Your task to perform on an android device: open app "Booking.com: Hotels and more" (install if not already installed), go to login, and select forgot password Image 0: 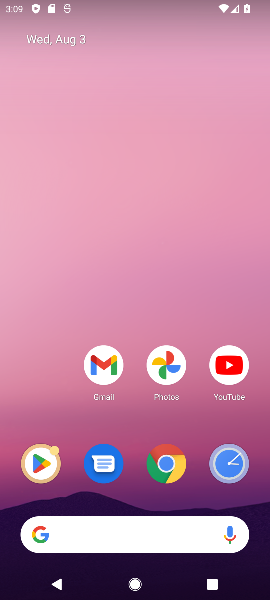
Step 0: drag from (172, 522) to (190, 265)
Your task to perform on an android device: open app "Booking.com: Hotels and more" (install if not already installed), go to login, and select forgot password Image 1: 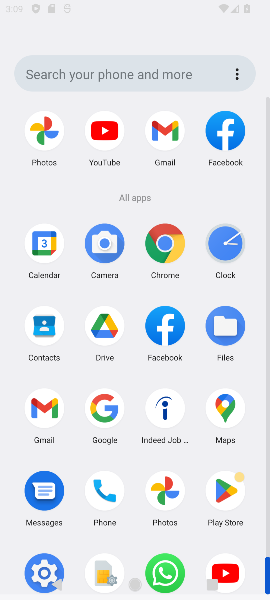
Step 1: drag from (167, 394) to (154, 162)
Your task to perform on an android device: open app "Booking.com: Hotels and more" (install if not already installed), go to login, and select forgot password Image 2: 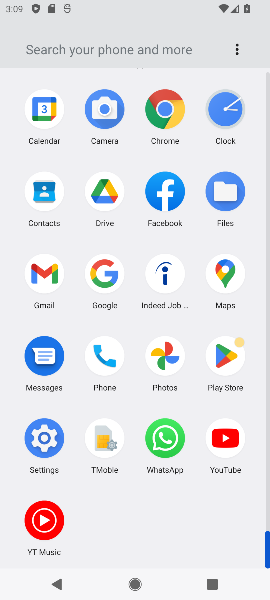
Step 2: click (227, 351)
Your task to perform on an android device: open app "Booking.com: Hotels and more" (install if not already installed), go to login, and select forgot password Image 3: 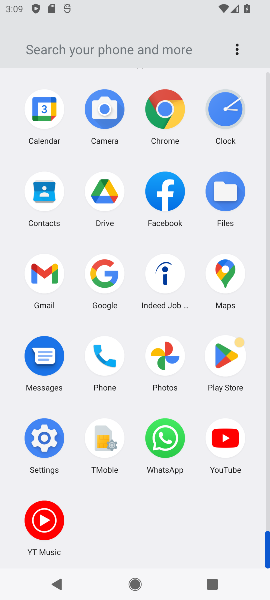
Step 3: click (227, 351)
Your task to perform on an android device: open app "Booking.com: Hotels and more" (install if not already installed), go to login, and select forgot password Image 4: 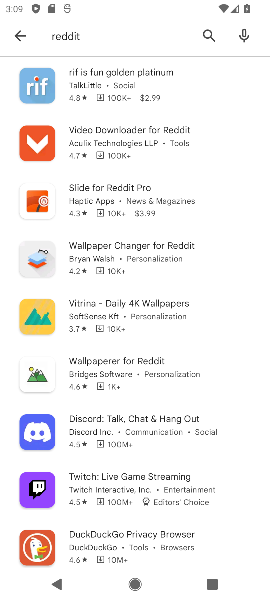
Step 4: click (207, 33)
Your task to perform on an android device: open app "Booking.com: Hotels and more" (install if not already installed), go to login, and select forgot password Image 5: 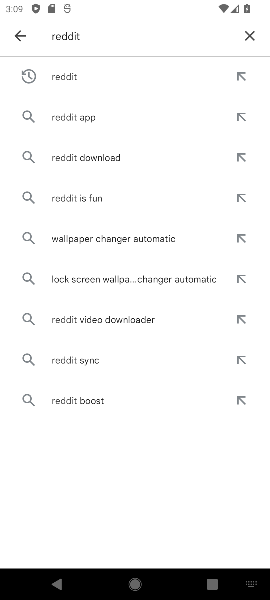
Step 5: click (249, 31)
Your task to perform on an android device: open app "Booking.com: Hotels and more" (install if not already installed), go to login, and select forgot password Image 6: 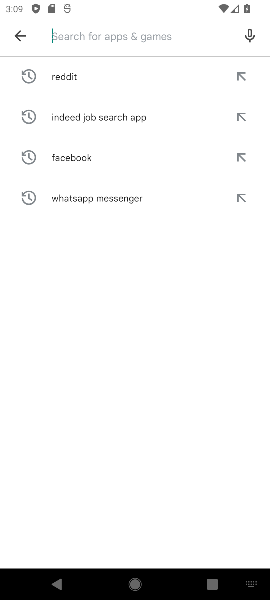
Step 6: type "Booking .com"
Your task to perform on an android device: open app "Booking.com: Hotels and more" (install if not already installed), go to login, and select forgot password Image 7: 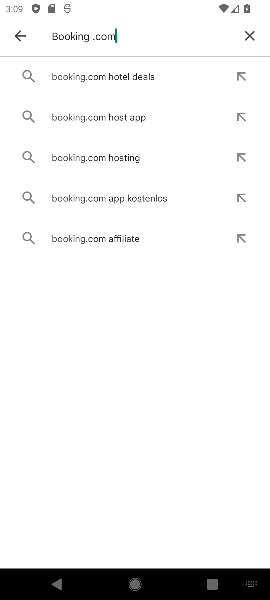
Step 7: click (118, 78)
Your task to perform on an android device: open app "Booking.com: Hotels and more" (install if not already installed), go to login, and select forgot password Image 8: 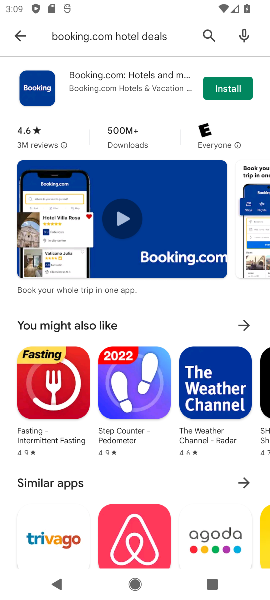
Step 8: click (228, 87)
Your task to perform on an android device: open app "Booking.com: Hotels and more" (install if not already installed), go to login, and select forgot password Image 9: 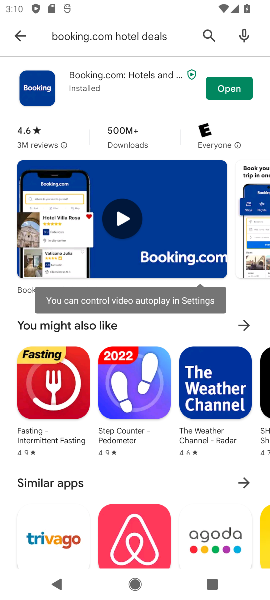
Step 9: click (221, 86)
Your task to perform on an android device: open app "Booking.com: Hotels and more" (install if not already installed), go to login, and select forgot password Image 10: 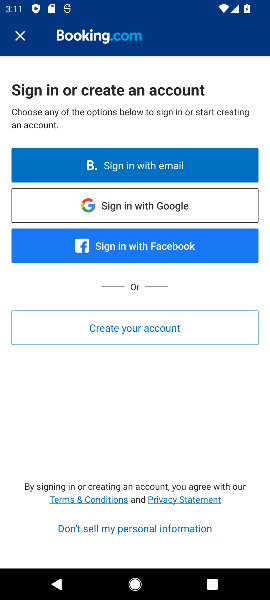
Step 10: drag from (128, 380) to (115, 172)
Your task to perform on an android device: open app "Booking.com: Hotels and more" (install if not already installed), go to login, and select forgot password Image 11: 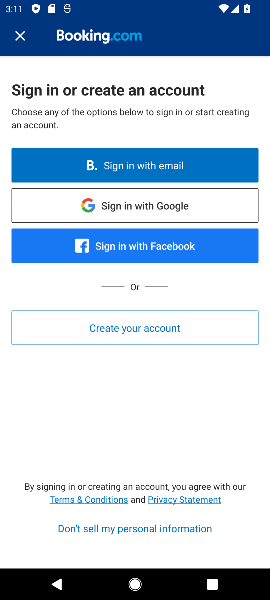
Step 11: drag from (84, 481) to (79, 259)
Your task to perform on an android device: open app "Booking.com: Hotels and more" (install if not already installed), go to login, and select forgot password Image 12: 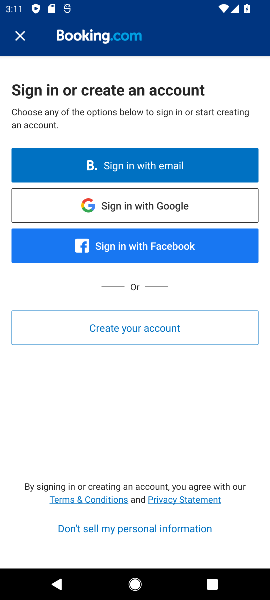
Step 12: drag from (123, 496) to (148, 237)
Your task to perform on an android device: open app "Booking.com: Hotels and more" (install if not already installed), go to login, and select forgot password Image 13: 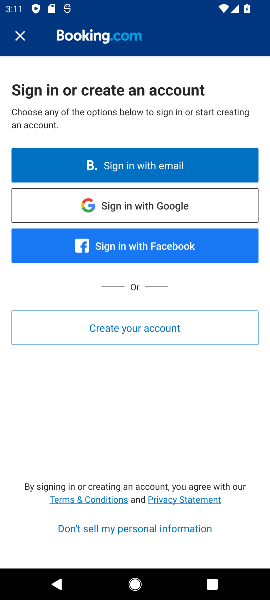
Step 13: drag from (115, 424) to (168, 199)
Your task to perform on an android device: open app "Booking.com: Hotels and more" (install if not already installed), go to login, and select forgot password Image 14: 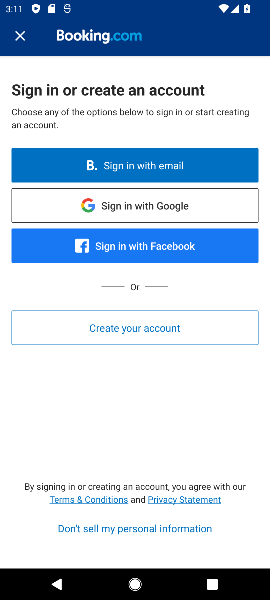
Step 14: click (150, 168)
Your task to perform on an android device: open app "Booking.com: Hotels and more" (install if not already installed), go to login, and select forgot password Image 15: 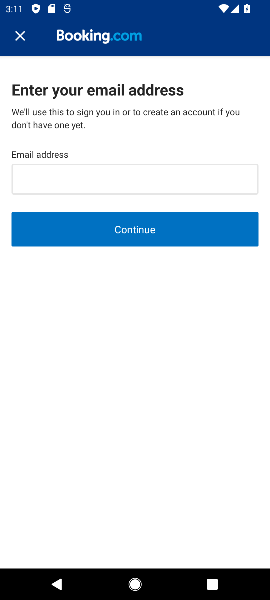
Step 15: click (21, 35)
Your task to perform on an android device: open app "Booking.com: Hotels and more" (install if not already installed), go to login, and select forgot password Image 16: 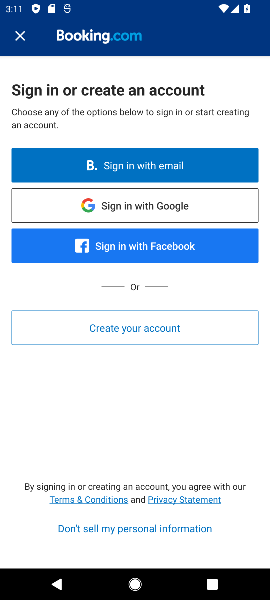
Step 16: click (23, 35)
Your task to perform on an android device: open app "Booking.com: Hotels and more" (install if not already installed), go to login, and select forgot password Image 17: 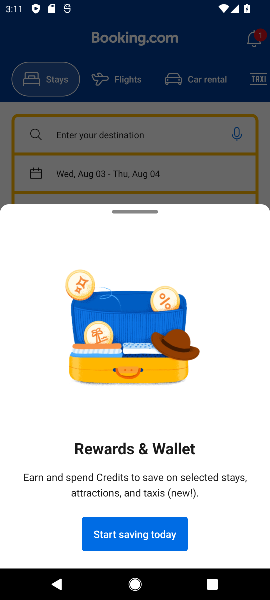
Step 17: click (143, 536)
Your task to perform on an android device: open app "Booking.com: Hotels and more" (install if not already installed), go to login, and select forgot password Image 18: 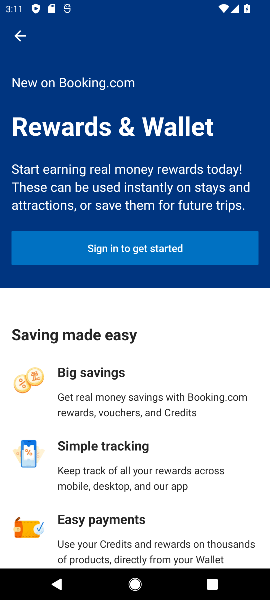
Step 18: task complete